Your task to perform on an android device: turn off translation in the chrome app Image 0: 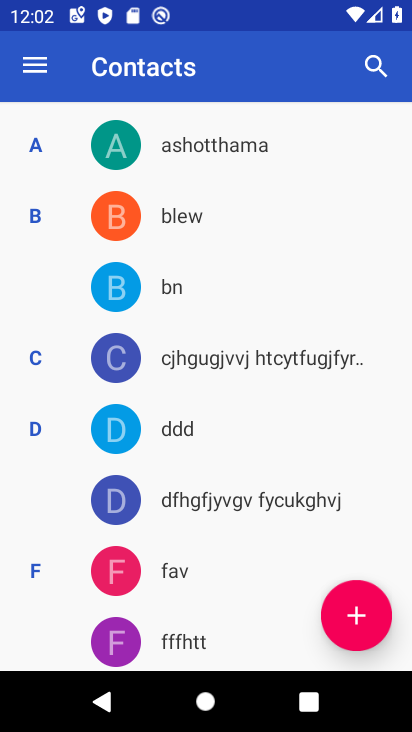
Step 0: press home button
Your task to perform on an android device: turn off translation in the chrome app Image 1: 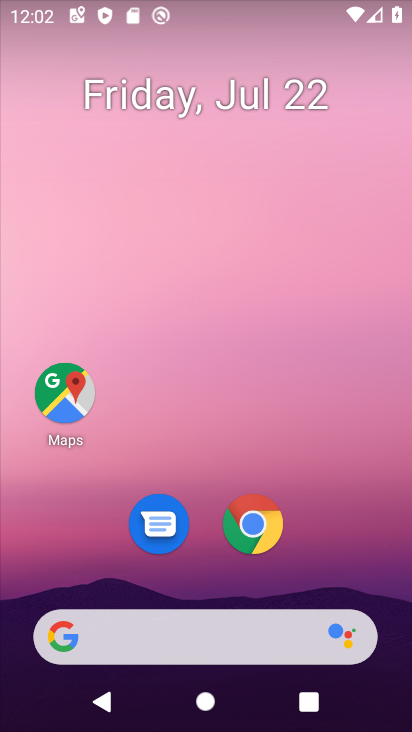
Step 1: click (268, 518)
Your task to perform on an android device: turn off translation in the chrome app Image 2: 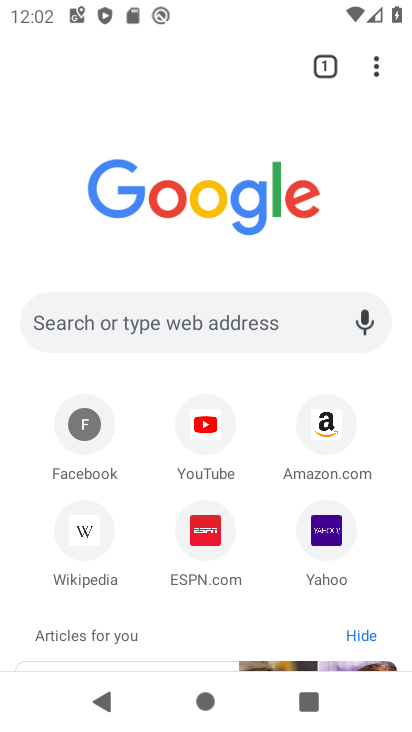
Step 2: click (377, 69)
Your task to perform on an android device: turn off translation in the chrome app Image 3: 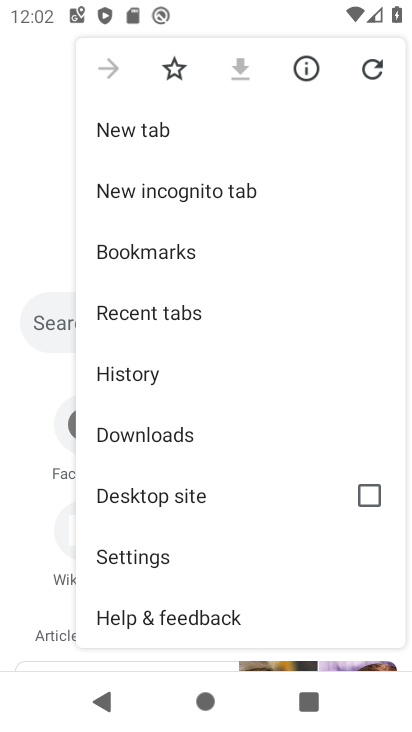
Step 3: click (142, 550)
Your task to perform on an android device: turn off translation in the chrome app Image 4: 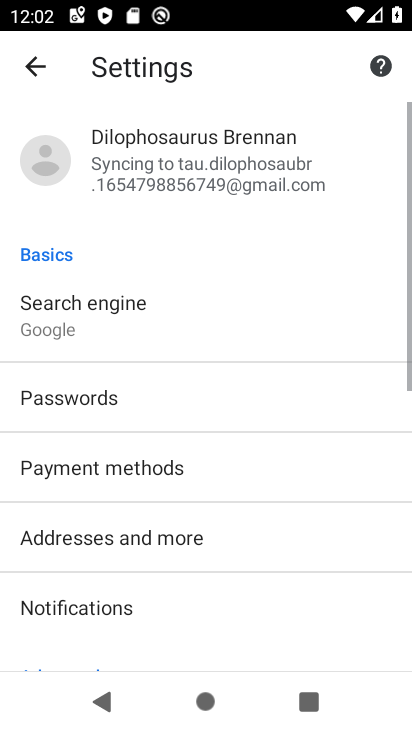
Step 4: drag from (232, 533) to (233, 144)
Your task to perform on an android device: turn off translation in the chrome app Image 5: 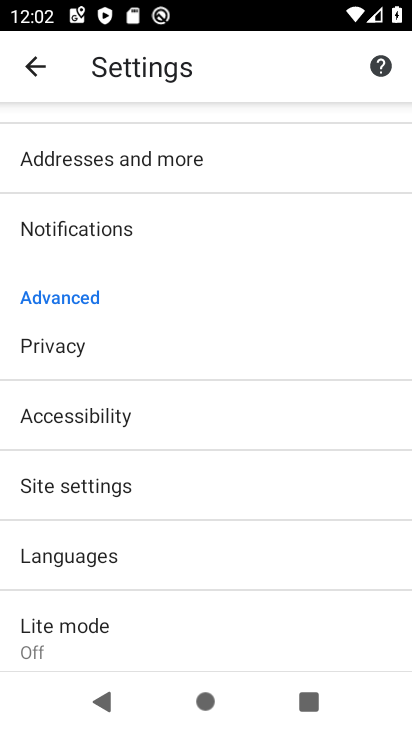
Step 5: click (186, 556)
Your task to perform on an android device: turn off translation in the chrome app Image 6: 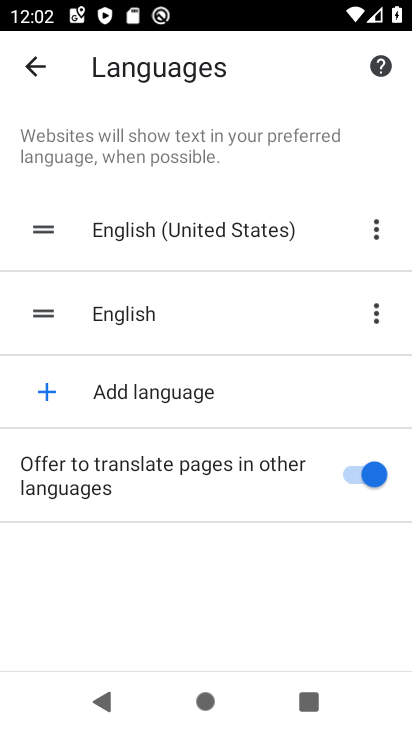
Step 6: click (370, 464)
Your task to perform on an android device: turn off translation in the chrome app Image 7: 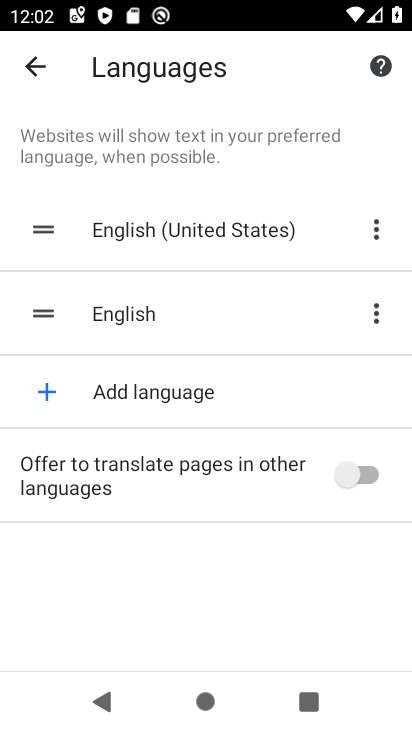
Step 7: task complete